Your task to perform on an android device: Open calendar and show me the fourth week of next month Image 0: 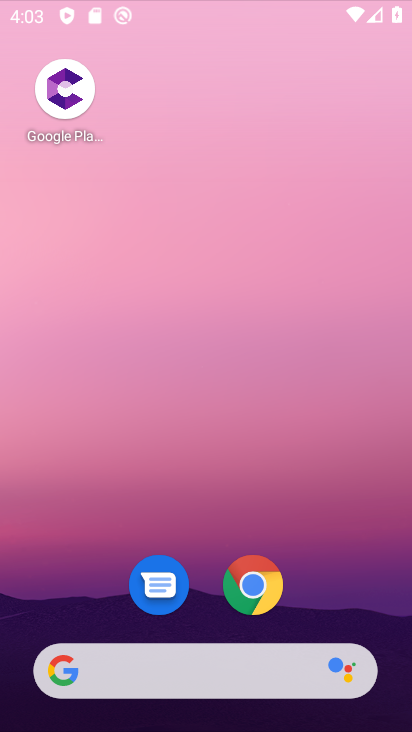
Step 0: press home button
Your task to perform on an android device: Open calendar and show me the fourth week of next month Image 1: 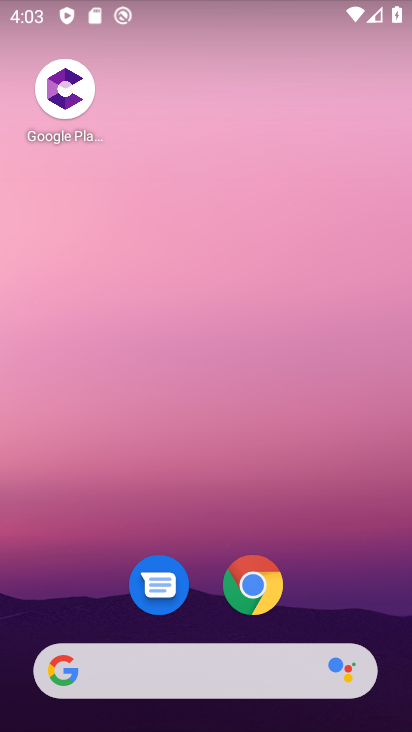
Step 1: drag from (334, 530) to (286, 237)
Your task to perform on an android device: Open calendar and show me the fourth week of next month Image 2: 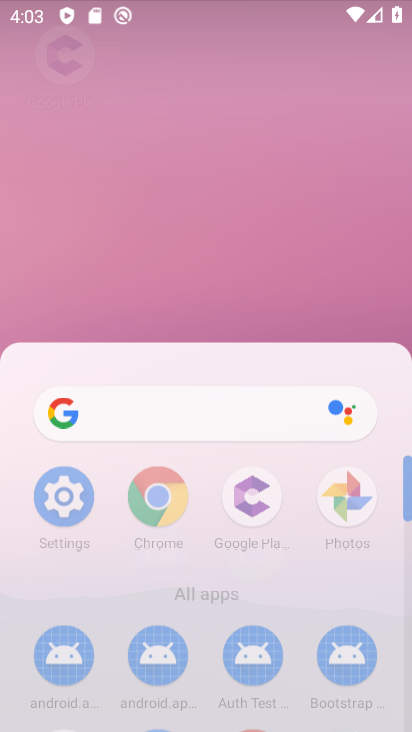
Step 2: drag from (253, 167) to (248, 124)
Your task to perform on an android device: Open calendar and show me the fourth week of next month Image 3: 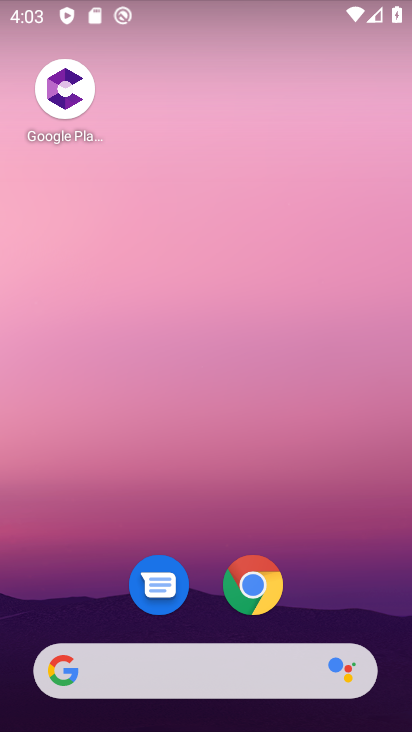
Step 3: drag from (341, 605) to (330, 41)
Your task to perform on an android device: Open calendar and show me the fourth week of next month Image 4: 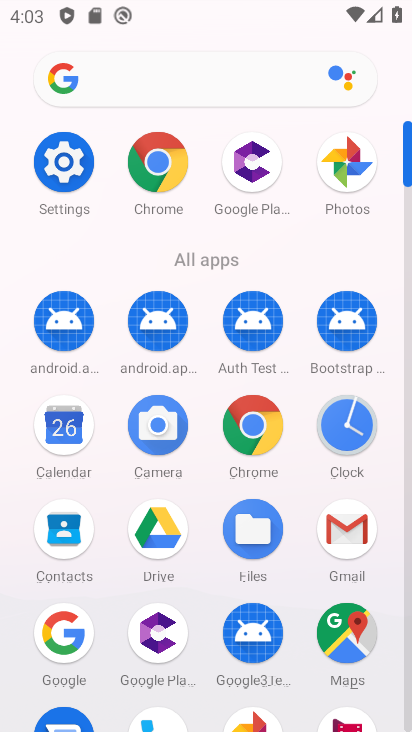
Step 4: click (70, 424)
Your task to perform on an android device: Open calendar and show me the fourth week of next month Image 5: 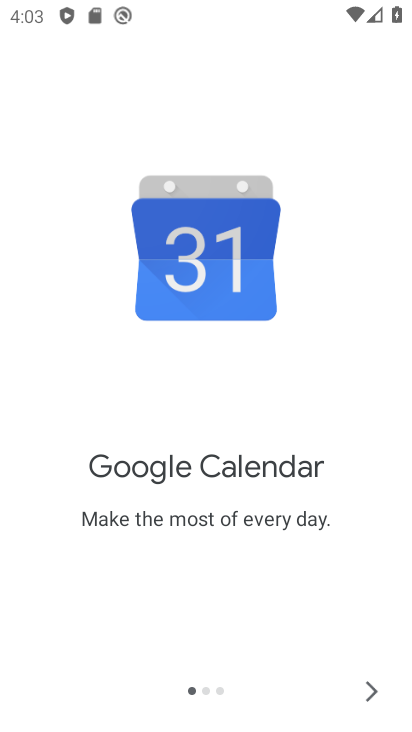
Step 5: click (373, 684)
Your task to perform on an android device: Open calendar and show me the fourth week of next month Image 6: 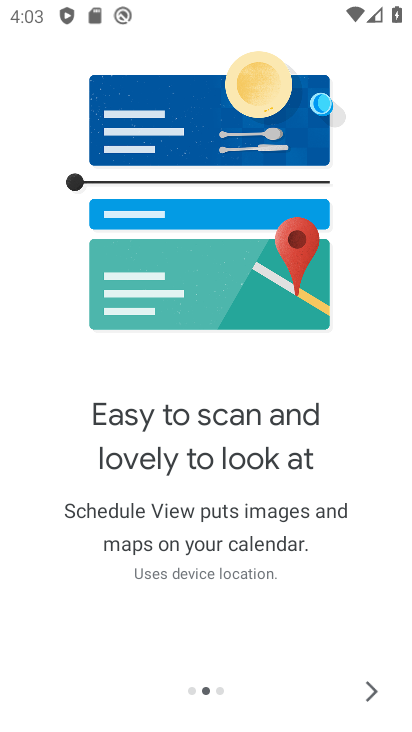
Step 6: click (373, 682)
Your task to perform on an android device: Open calendar and show me the fourth week of next month Image 7: 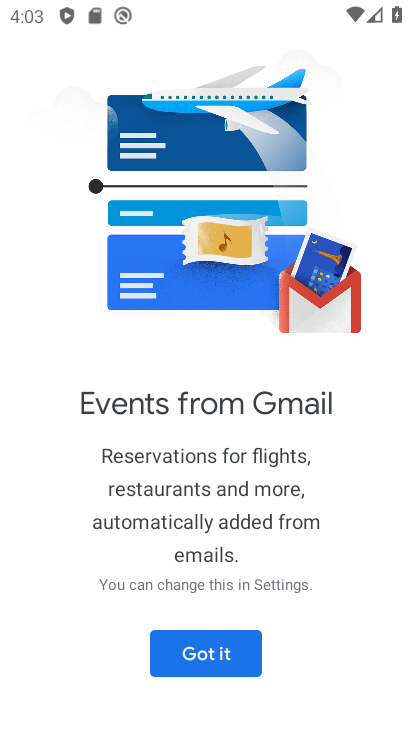
Step 7: click (240, 654)
Your task to perform on an android device: Open calendar and show me the fourth week of next month Image 8: 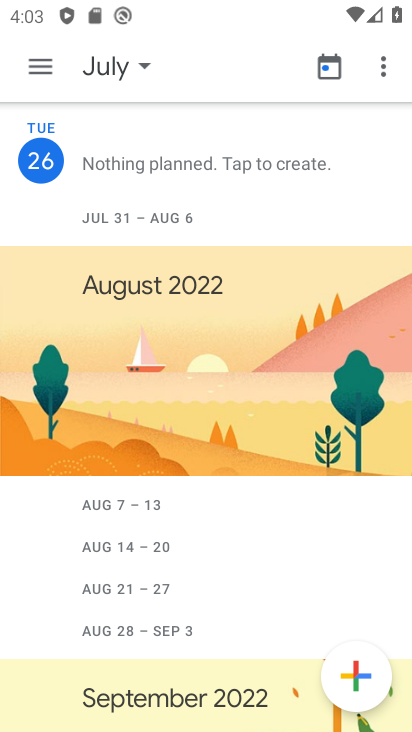
Step 8: click (41, 65)
Your task to perform on an android device: Open calendar and show me the fourth week of next month Image 9: 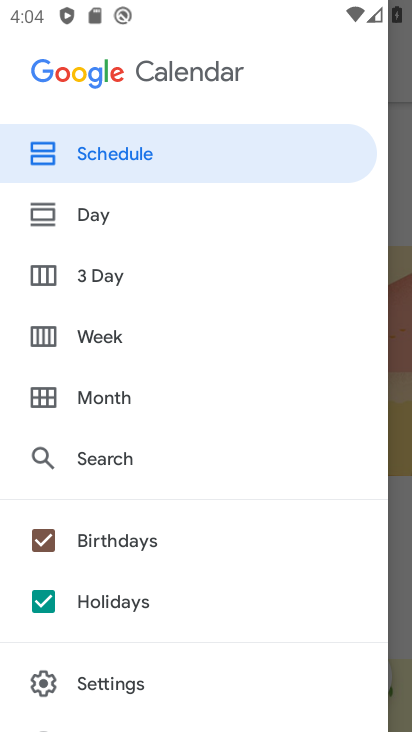
Step 9: click (84, 385)
Your task to perform on an android device: Open calendar and show me the fourth week of next month Image 10: 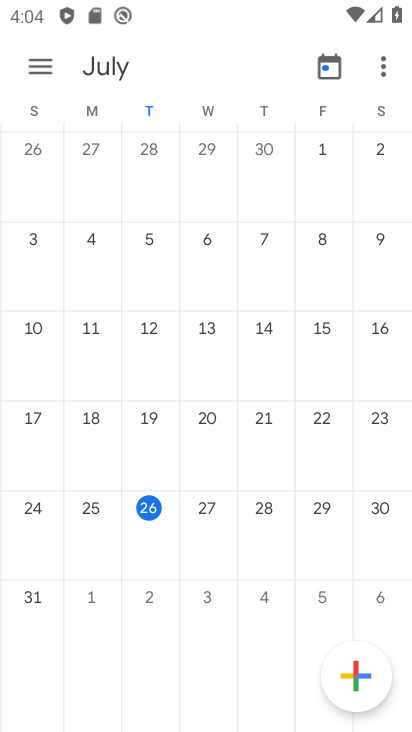
Step 10: drag from (388, 188) to (0, 208)
Your task to perform on an android device: Open calendar and show me the fourth week of next month Image 11: 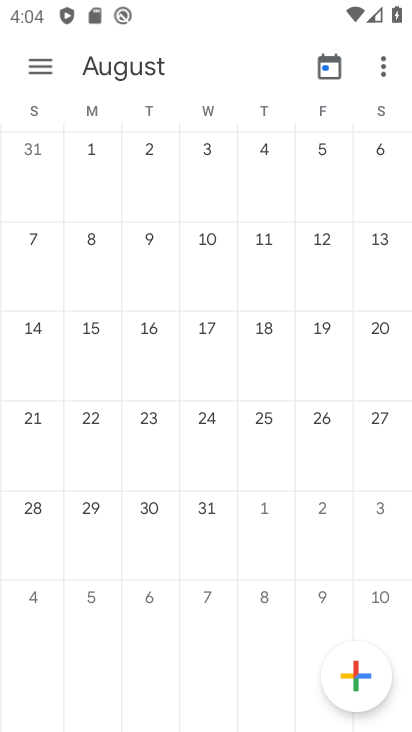
Step 11: click (39, 504)
Your task to perform on an android device: Open calendar and show me the fourth week of next month Image 12: 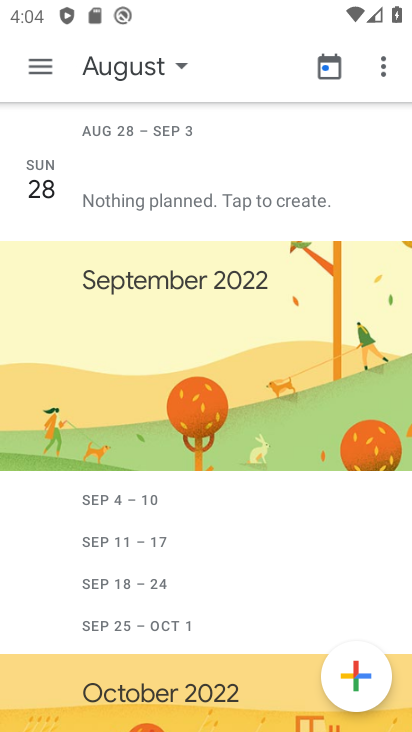
Step 12: click (46, 63)
Your task to perform on an android device: Open calendar and show me the fourth week of next month Image 13: 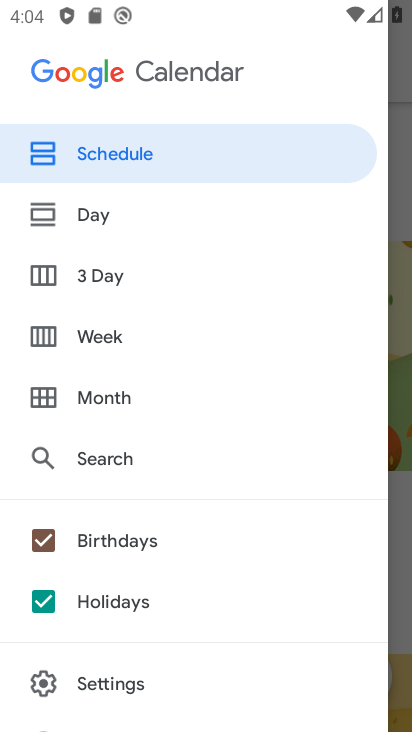
Step 13: click (46, 336)
Your task to perform on an android device: Open calendar and show me the fourth week of next month Image 14: 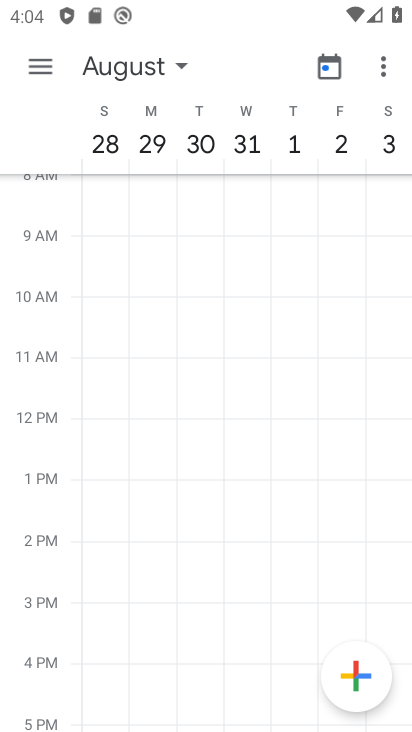
Step 14: task complete